Your task to perform on an android device: uninstall "DoorDash - Dasher" Image 0: 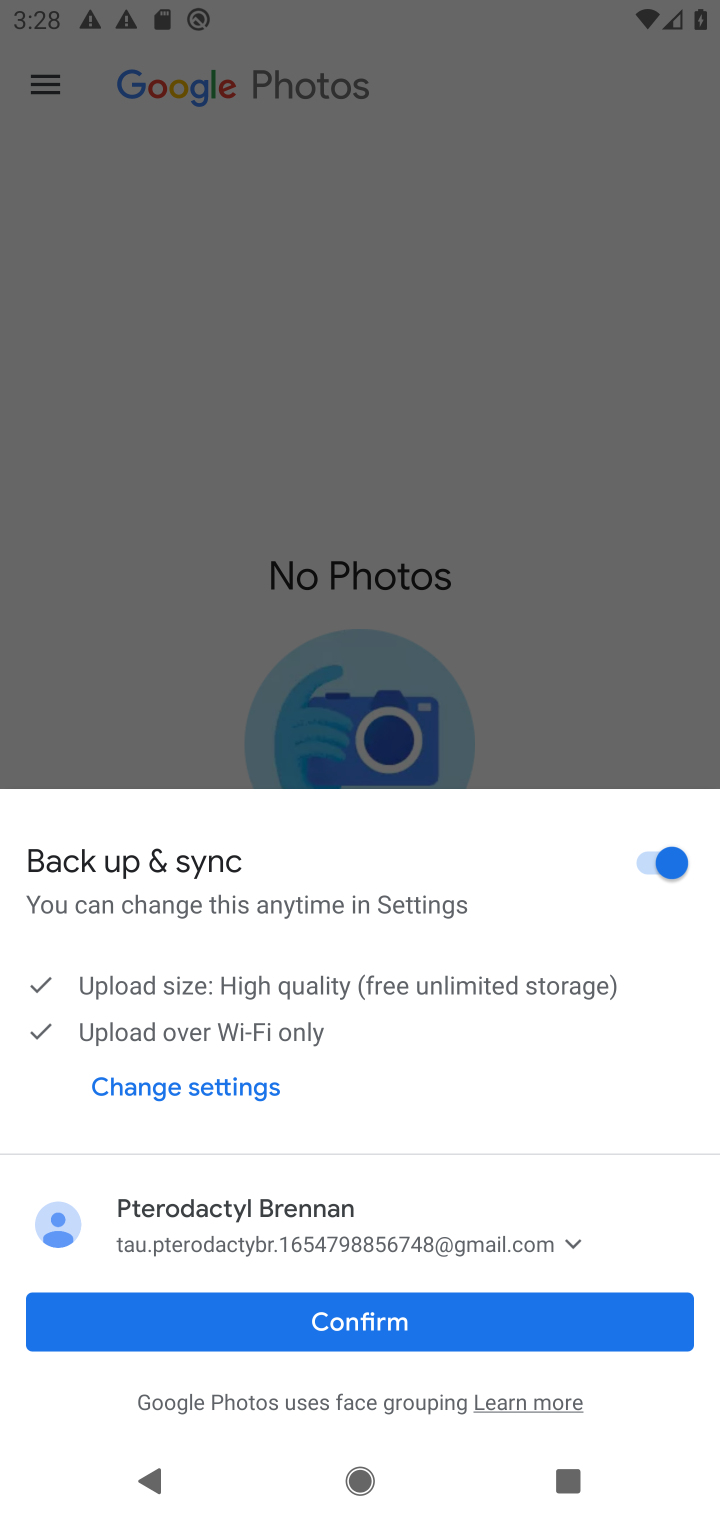
Step 0: press home button
Your task to perform on an android device: uninstall "DoorDash - Dasher" Image 1: 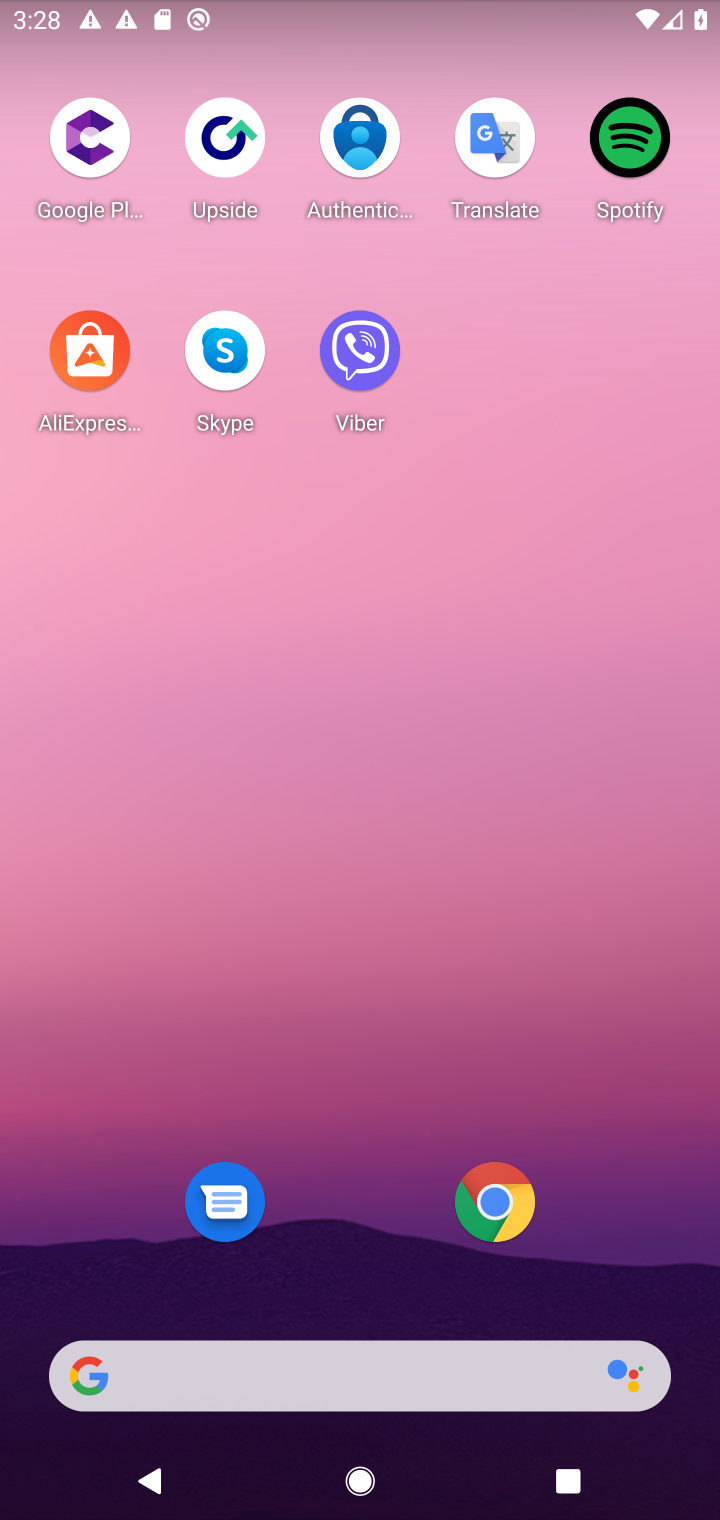
Step 1: press home button
Your task to perform on an android device: uninstall "DoorDash - Dasher" Image 2: 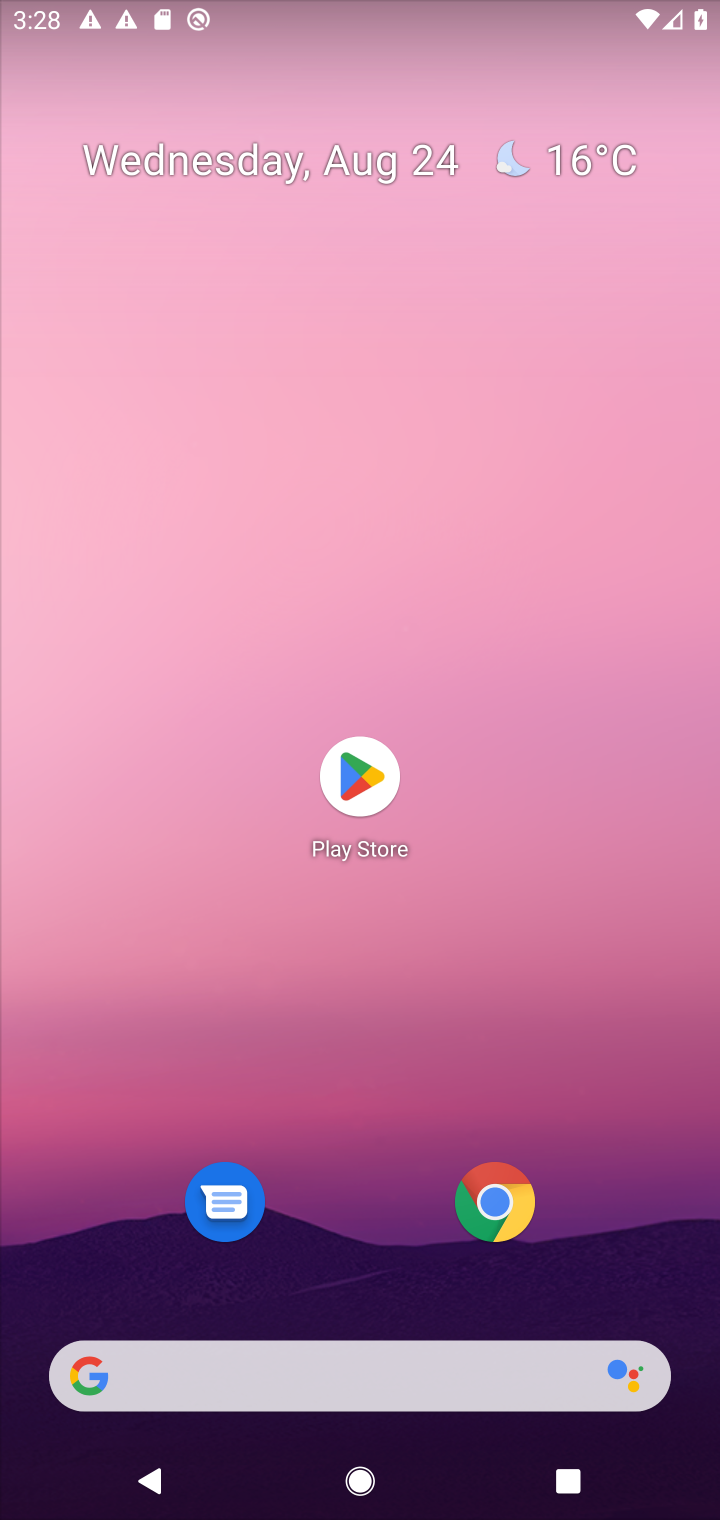
Step 2: click (364, 767)
Your task to perform on an android device: uninstall "DoorDash - Dasher" Image 3: 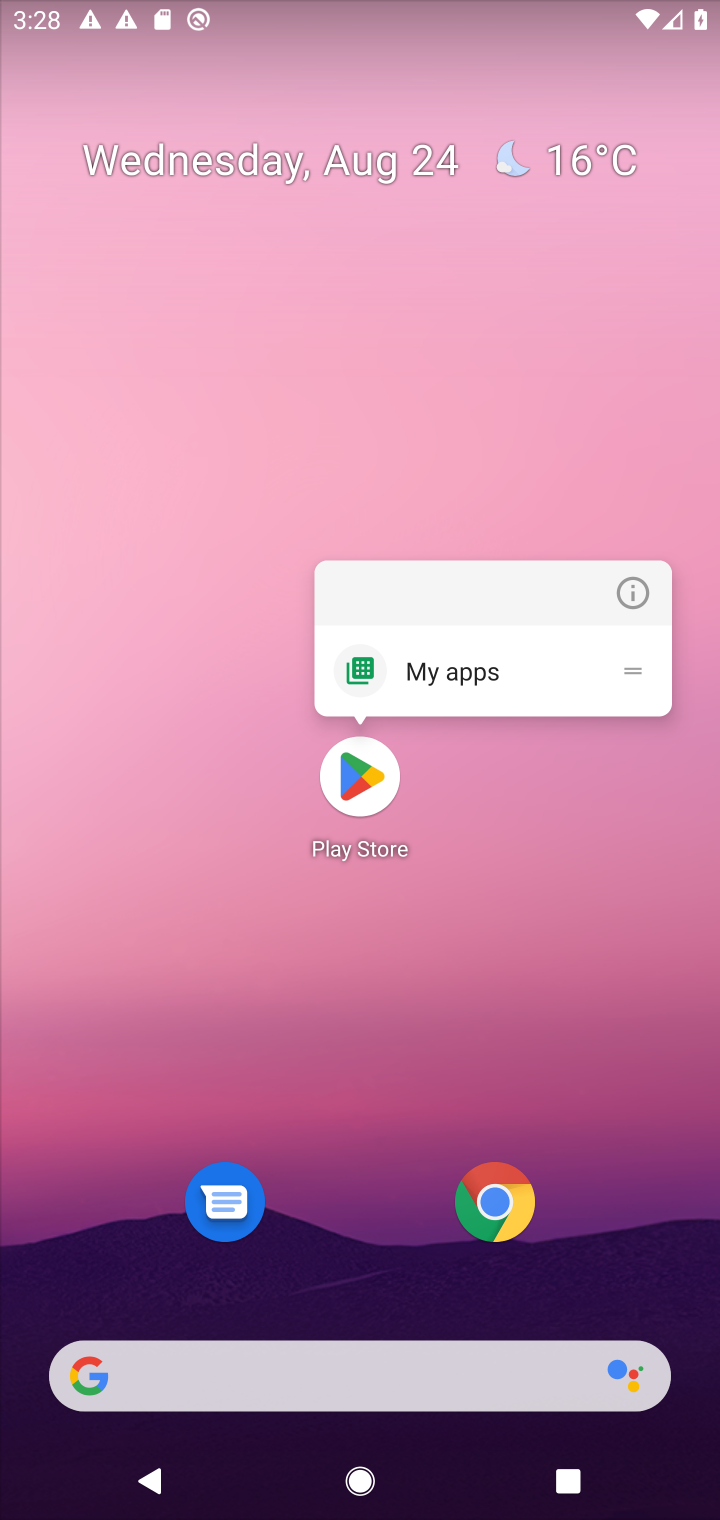
Step 3: click (364, 765)
Your task to perform on an android device: uninstall "DoorDash - Dasher" Image 4: 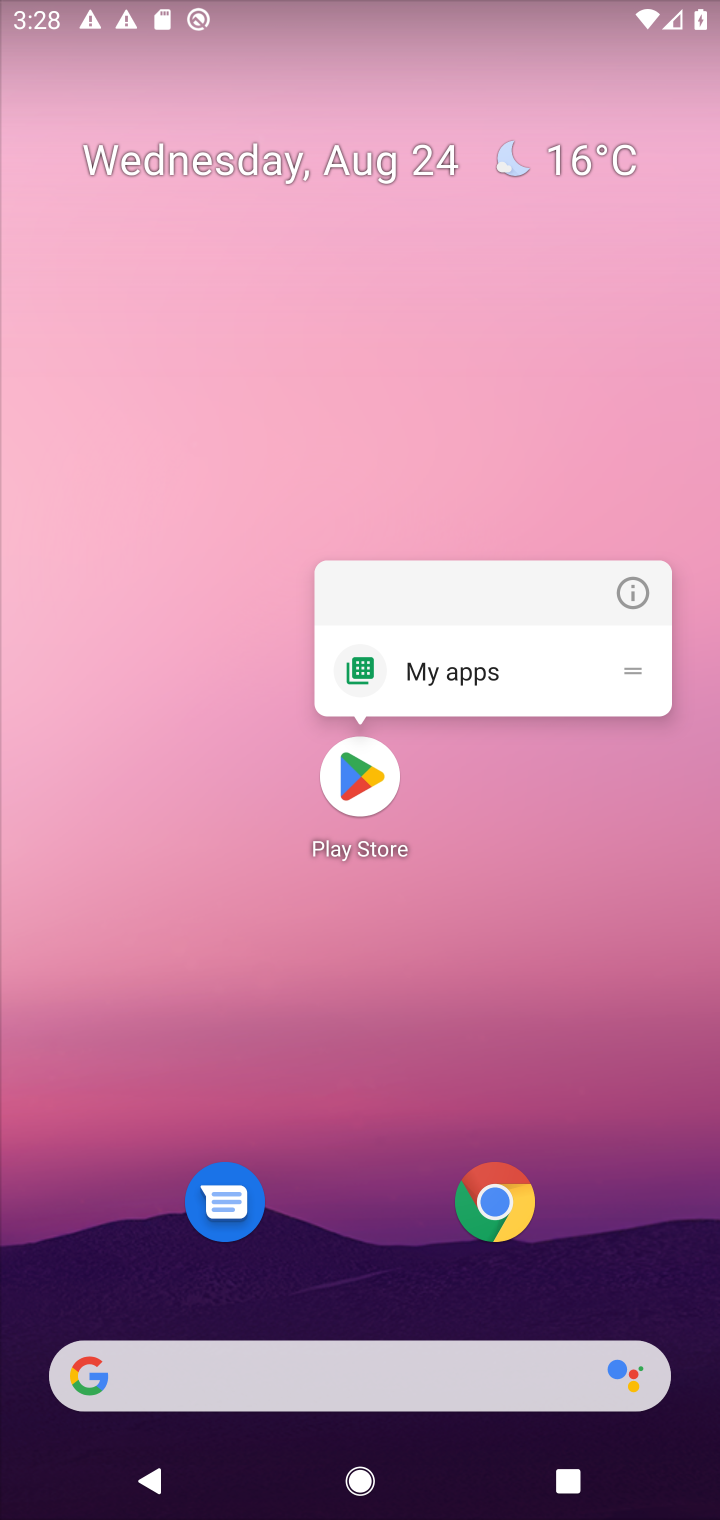
Step 4: click (364, 765)
Your task to perform on an android device: uninstall "DoorDash - Dasher" Image 5: 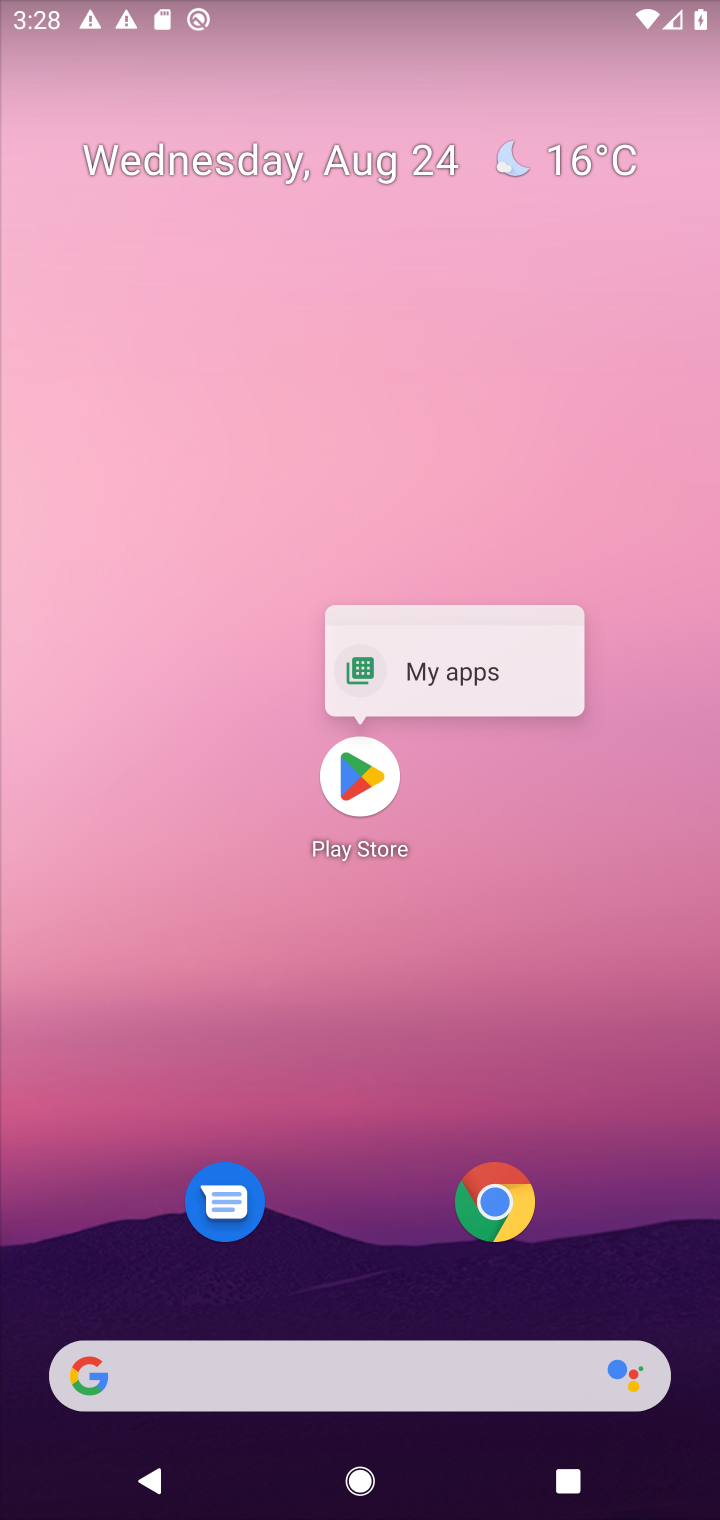
Step 5: click (364, 763)
Your task to perform on an android device: uninstall "DoorDash - Dasher" Image 6: 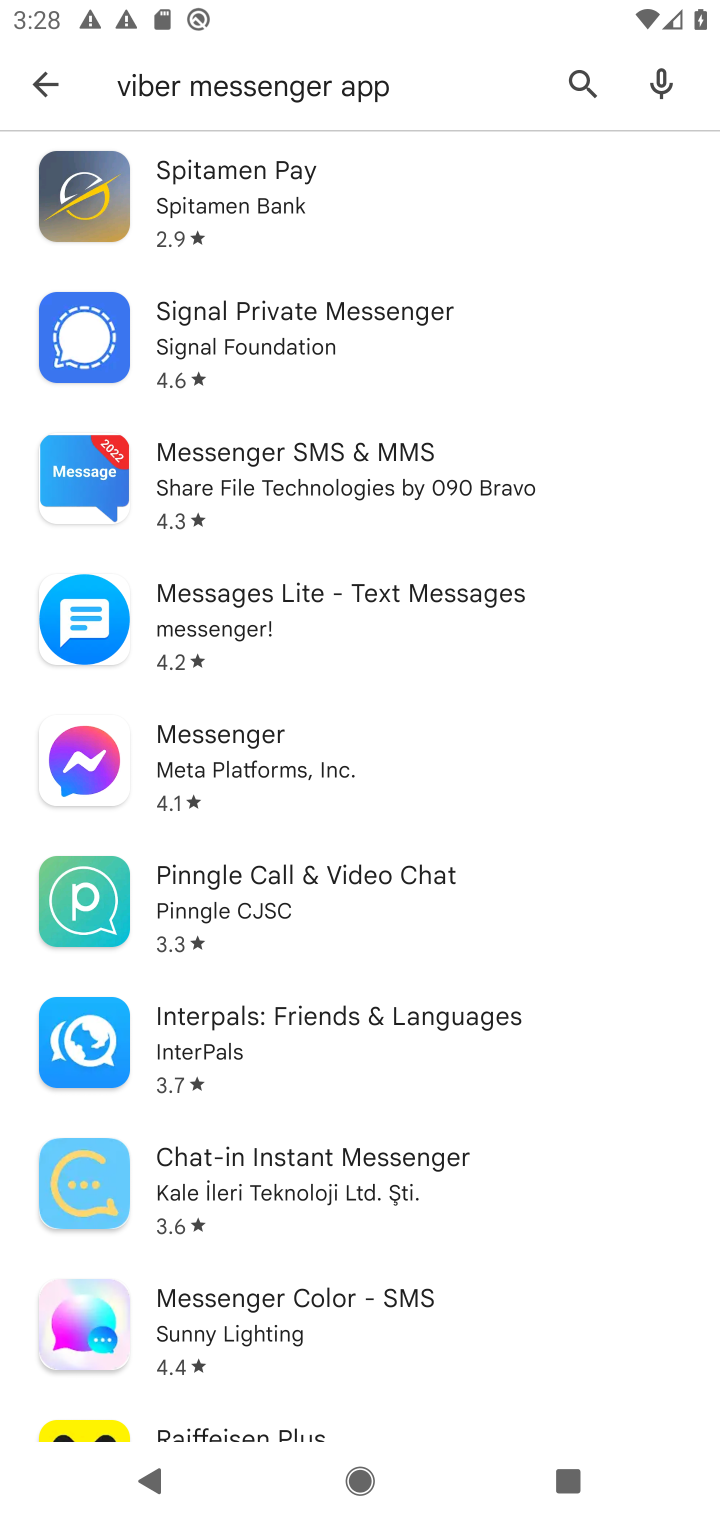
Step 6: click (584, 83)
Your task to perform on an android device: uninstall "DoorDash - Dasher" Image 7: 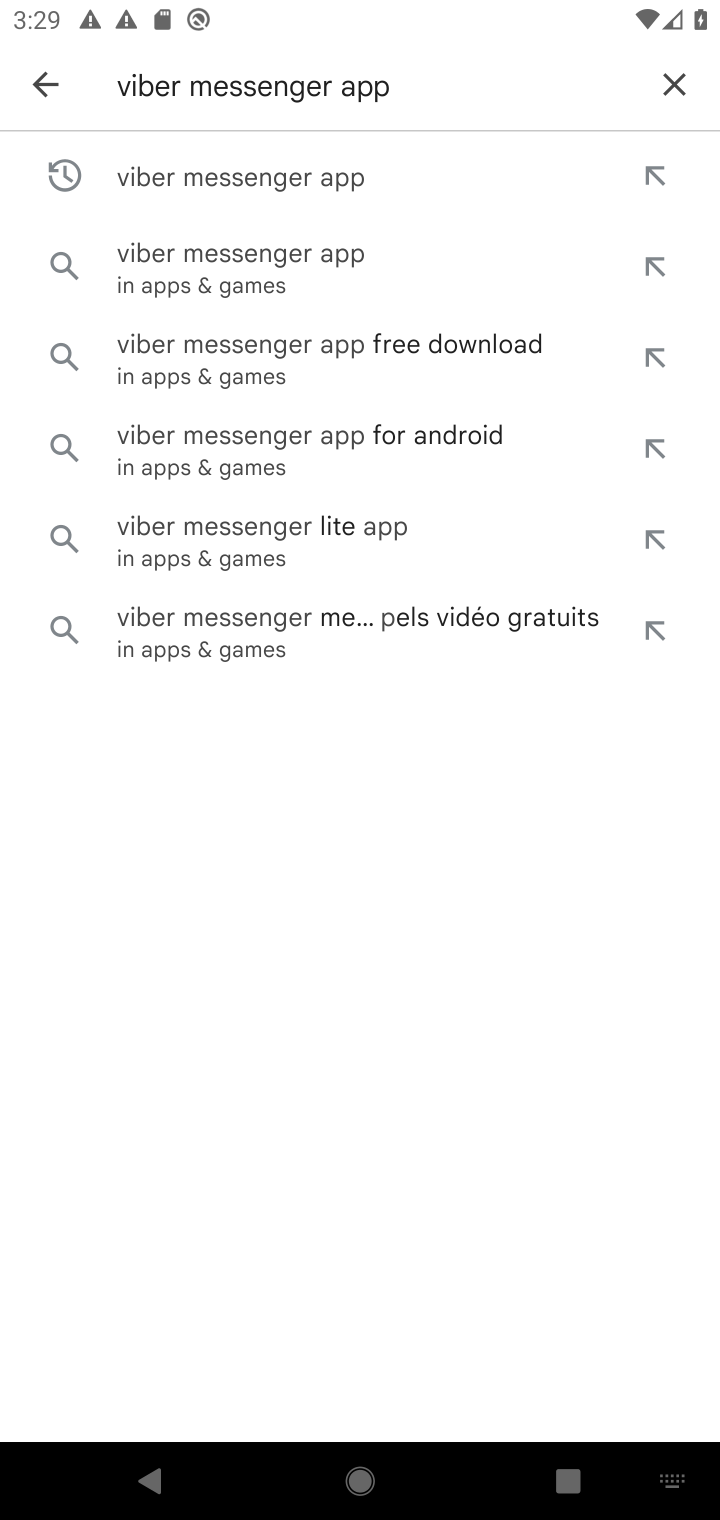
Step 7: click (669, 84)
Your task to perform on an android device: uninstall "DoorDash - Dasher" Image 8: 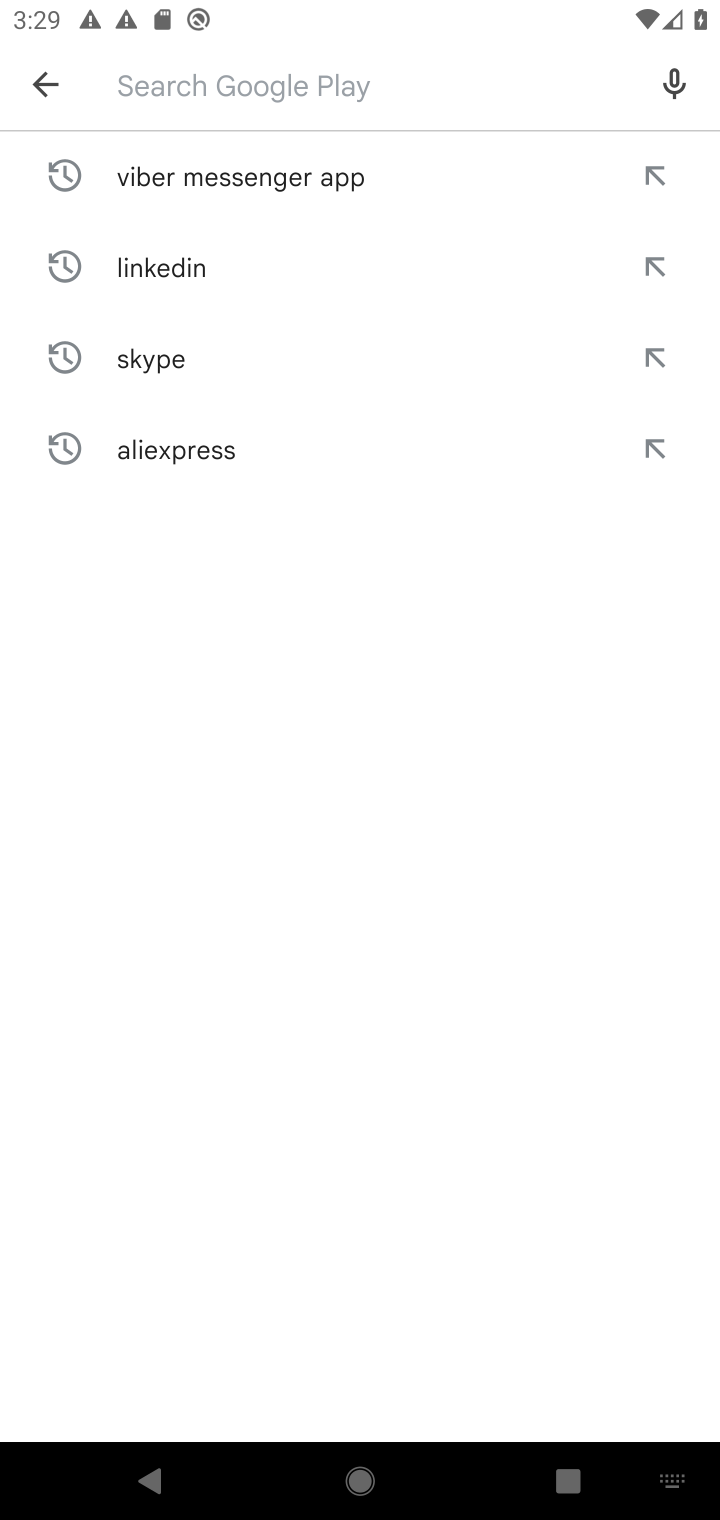
Step 8: type "DoorDash - Dasher"
Your task to perform on an android device: uninstall "DoorDash - Dasher" Image 9: 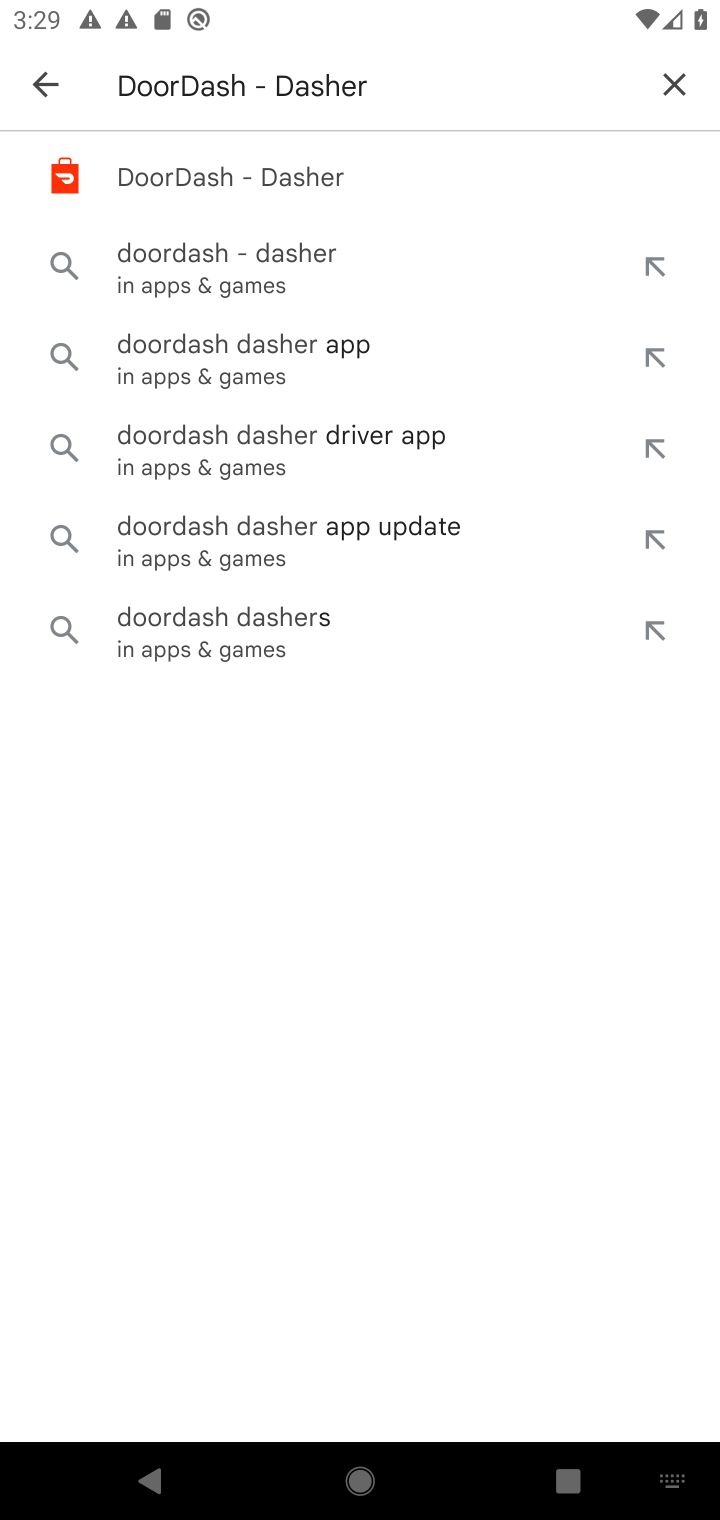
Step 9: click (238, 186)
Your task to perform on an android device: uninstall "DoorDash - Dasher" Image 10: 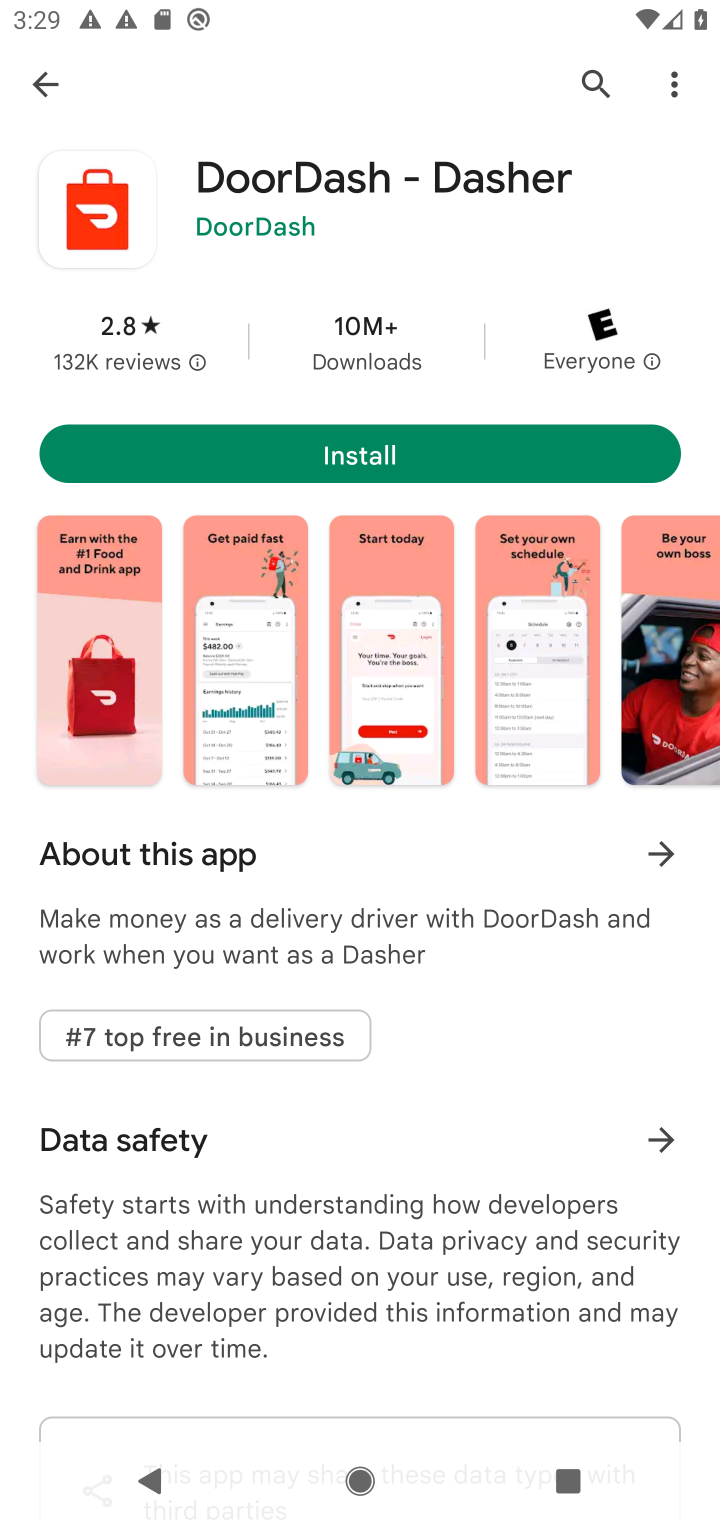
Step 10: task complete